Your task to perform on an android device: Open Android settings Image 0: 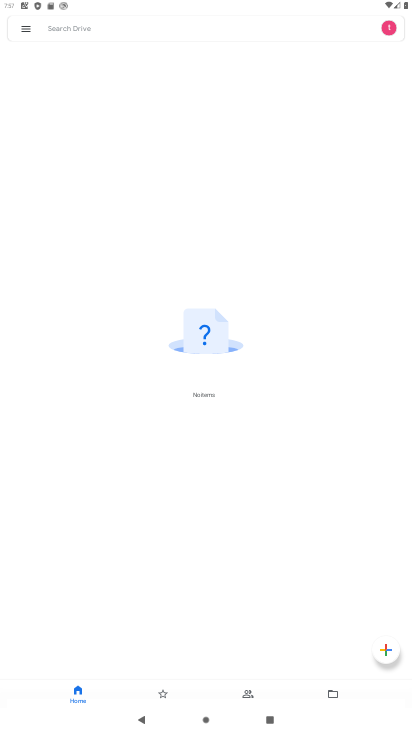
Step 0: press home button
Your task to perform on an android device: Open Android settings Image 1: 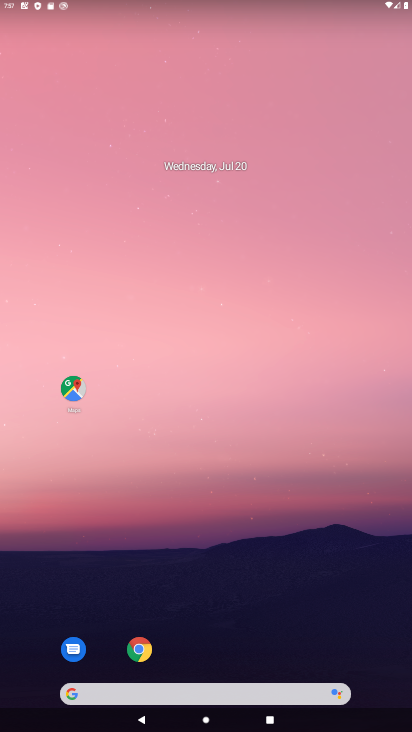
Step 1: drag from (211, 666) to (160, 13)
Your task to perform on an android device: Open Android settings Image 2: 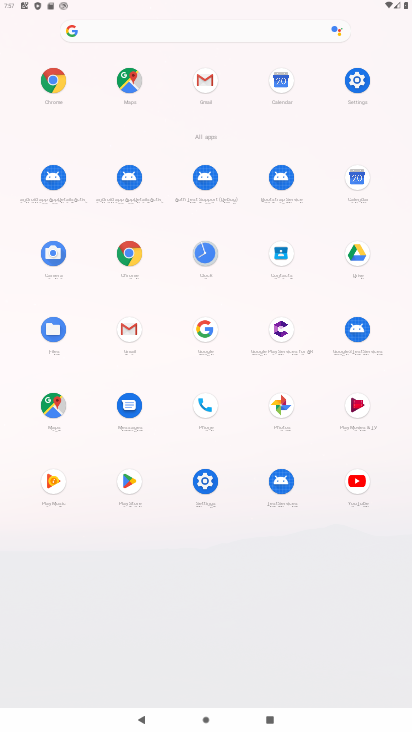
Step 2: click (337, 85)
Your task to perform on an android device: Open Android settings Image 3: 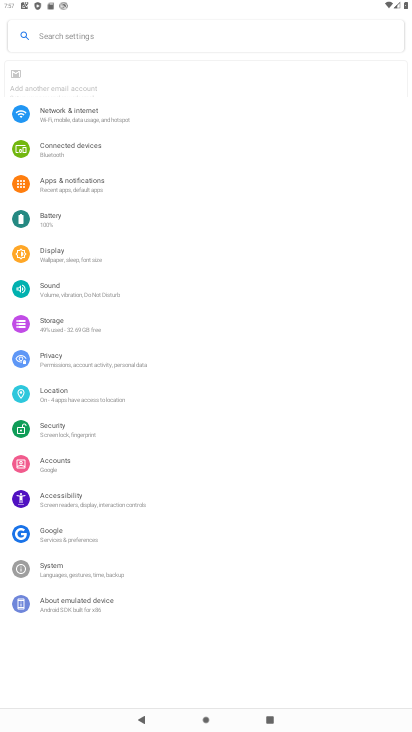
Step 3: task complete